Your task to perform on an android device: Go to notification settings Image 0: 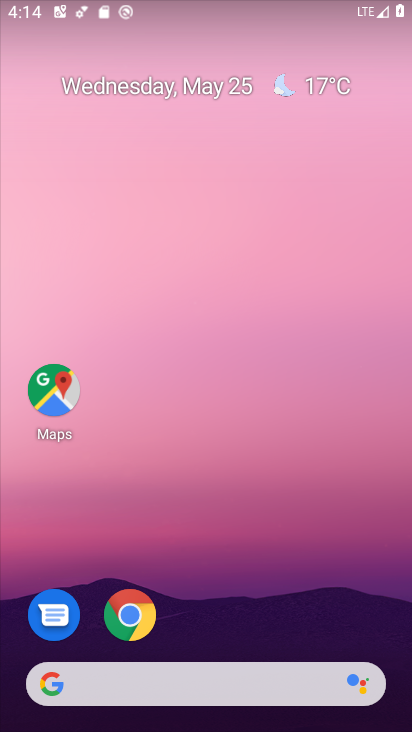
Step 0: drag from (303, 557) to (199, 23)
Your task to perform on an android device: Go to notification settings Image 1: 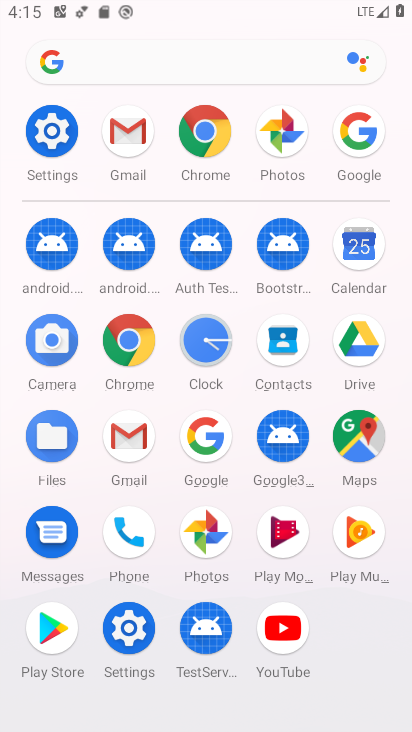
Step 1: click (53, 136)
Your task to perform on an android device: Go to notification settings Image 2: 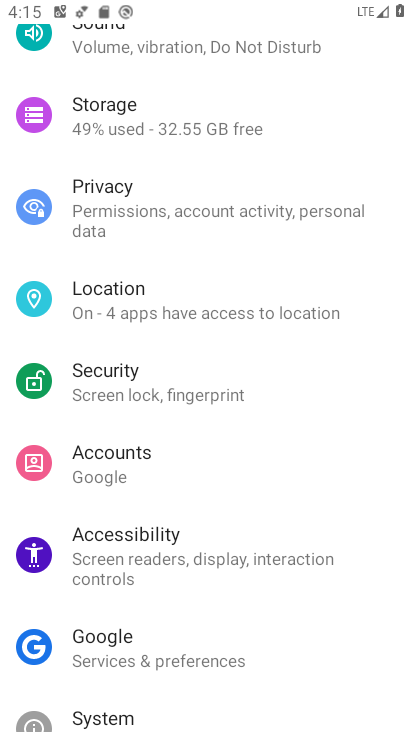
Step 2: drag from (226, 227) to (229, 687)
Your task to perform on an android device: Go to notification settings Image 3: 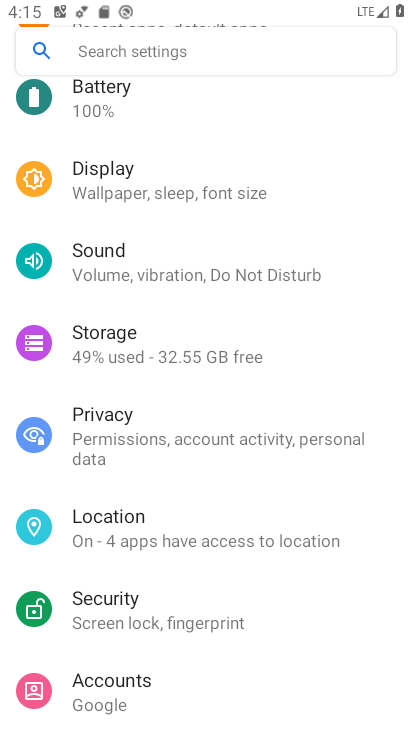
Step 3: drag from (204, 198) to (207, 597)
Your task to perform on an android device: Go to notification settings Image 4: 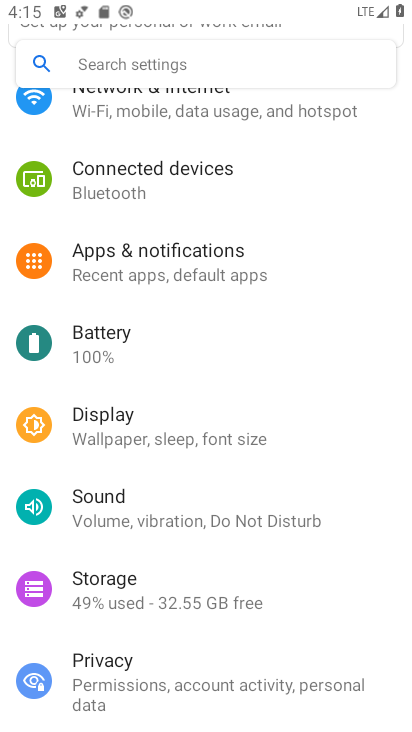
Step 4: click (160, 259)
Your task to perform on an android device: Go to notification settings Image 5: 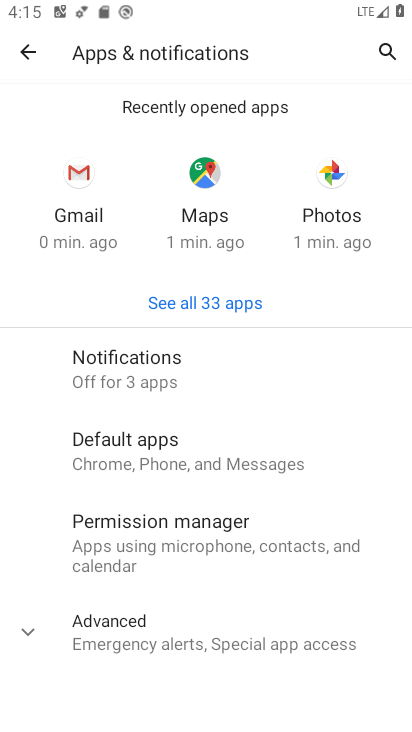
Step 5: task complete